Your task to perform on an android device: toggle sleep mode Image 0: 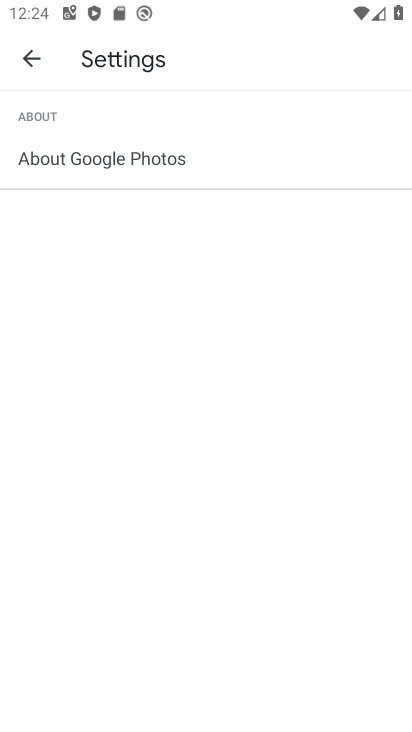
Step 0: press back button
Your task to perform on an android device: toggle sleep mode Image 1: 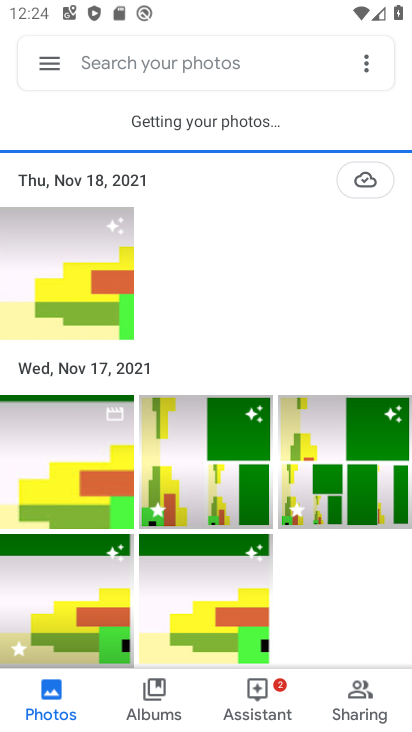
Step 1: press back button
Your task to perform on an android device: toggle sleep mode Image 2: 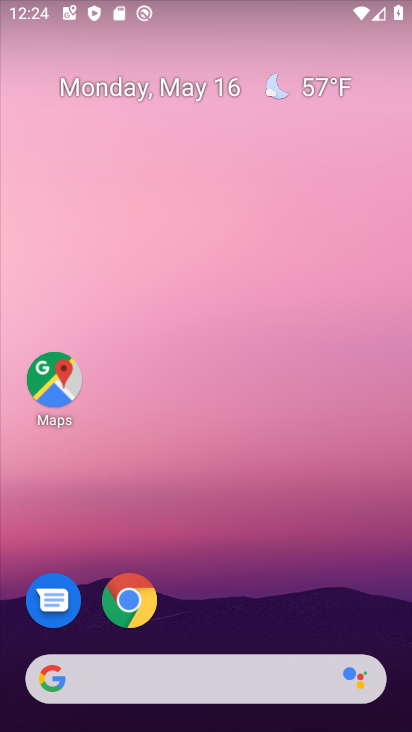
Step 2: drag from (217, 647) to (285, 0)
Your task to perform on an android device: toggle sleep mode Image 3: 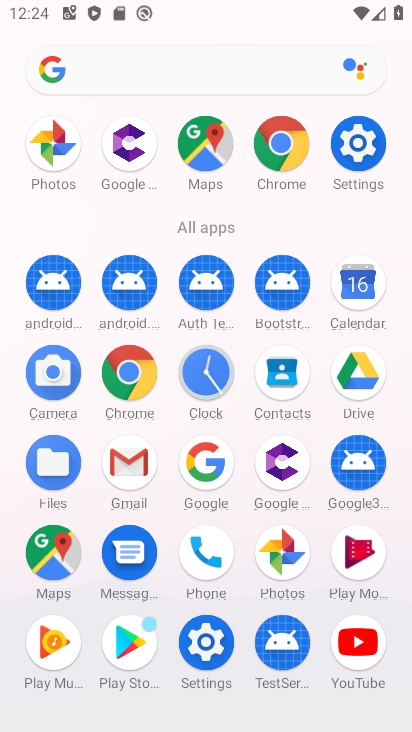
Step 3: click (357, 133)
Your task to perform on an android device: toggle sleep mode Image 4: 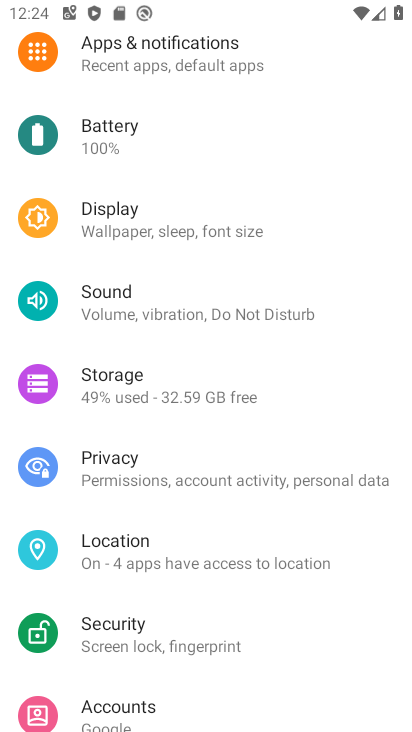
Step 4: drag from (311, 149) to (250, 720)
Your task to perform on an android device: toggle sleep mode Image 5: 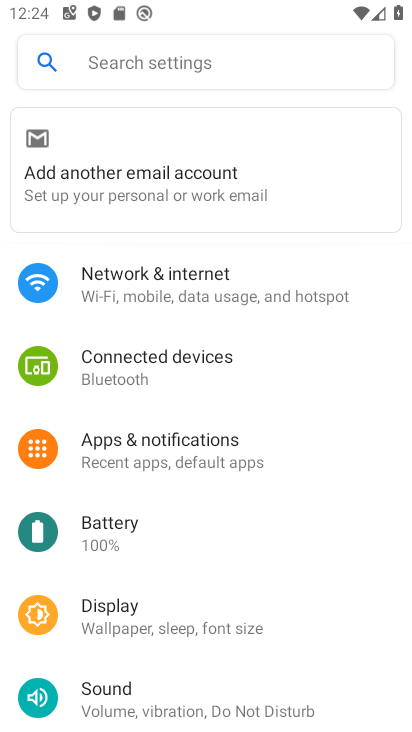
Step 5: click (136, 69)
Your task to perform on an android device: toggle sleep mode Image 6: 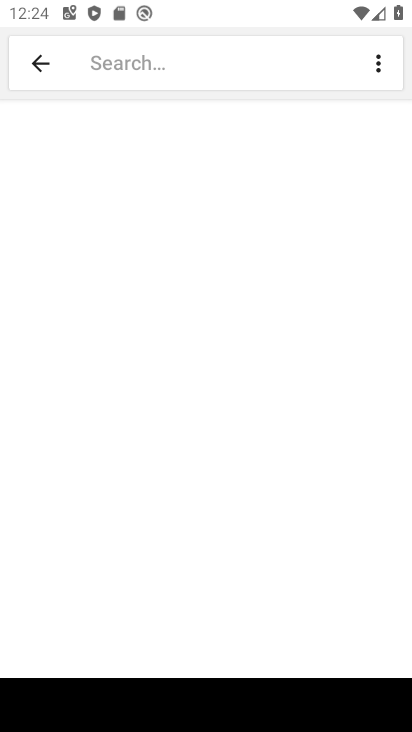
Step 6: type "sleep mode"
Your task to perform on an android device: toggle sleep mode Image 7: 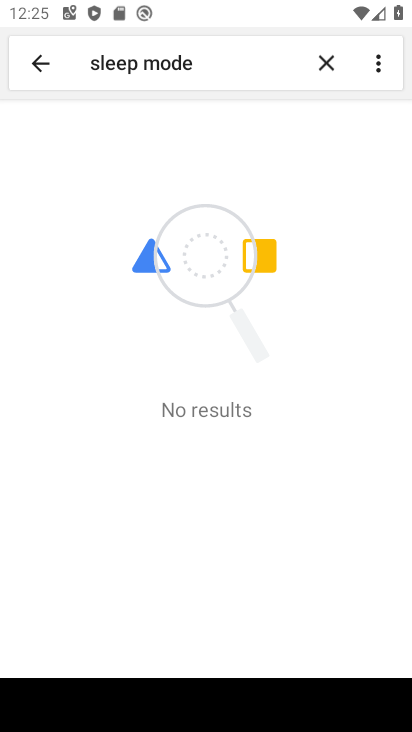
Step 7: task complete